Your task to perform on an android device: open a new tab in the chrome app Image 0: 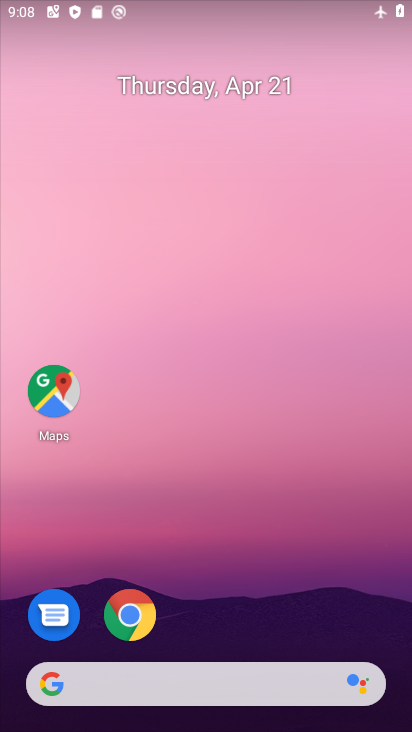
Step 0: click (130, 615)
Your task to perform on an android device: open a new tab in the chrome app Image 1: 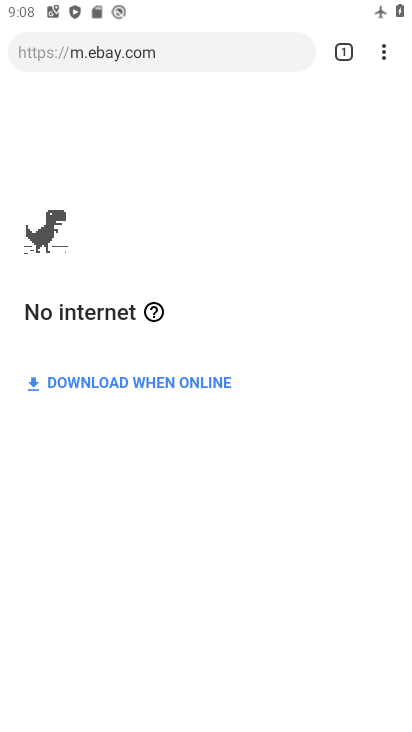
Step 1: task complete